Your task to perform on an android device: turn on sleep mode Image 0: 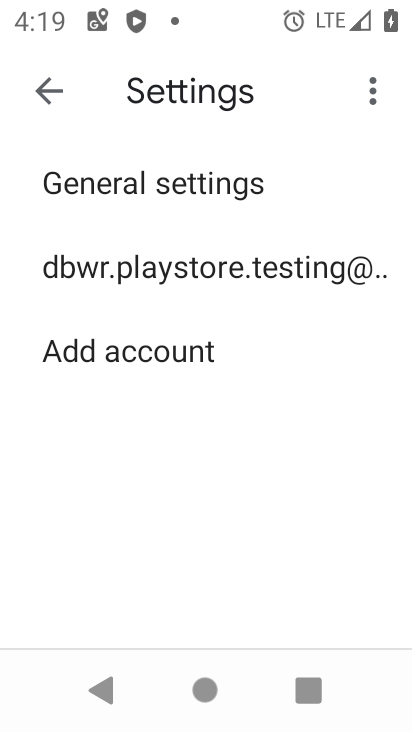
Step 0: press home button
Your task to perform on an android device: turn on sleep mode Image 1: 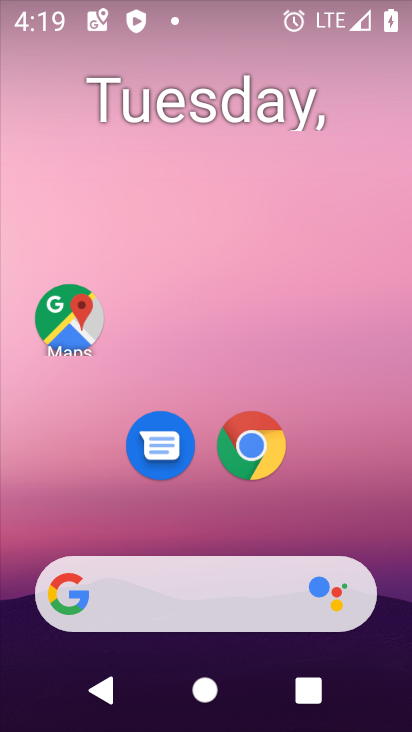
Step 1: drag from (323, 546) to (370, 168)
Your task to perform on an android device: turn on sleep mode Image 2: 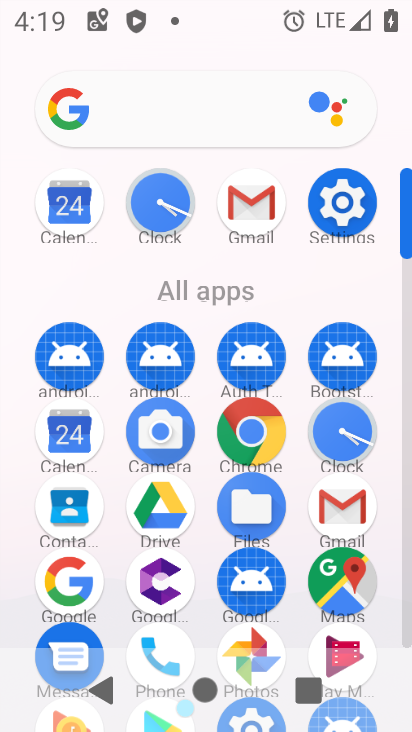
Step 2: click (361, 191)
Your task to perform on an android device: turn on sleep mode Image 3: 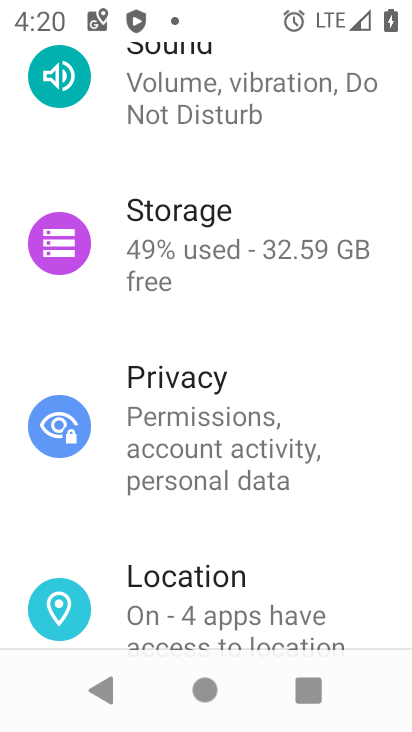
Step 3: drag from (277, 114) to (158, 575)
Your task to perform on an android device: turn on sleep mode Image 4: 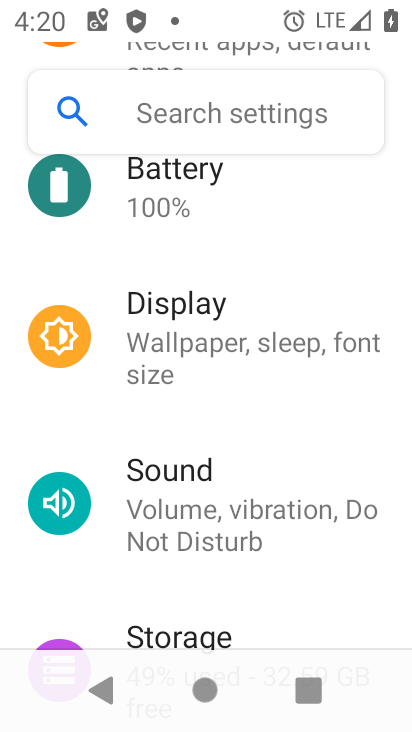
Step 4: click (180, 344)
Your task to perform on an android device: turn on sleep mode Image 5: 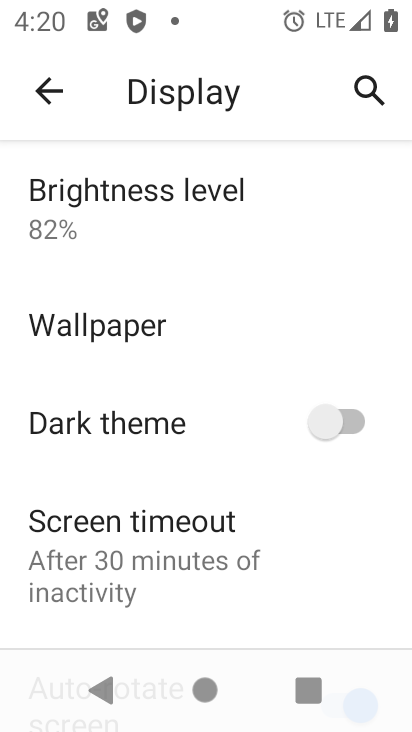
Step 5: task complete